Your task to perform on an android device: change your default location settings in chrome Image 0: 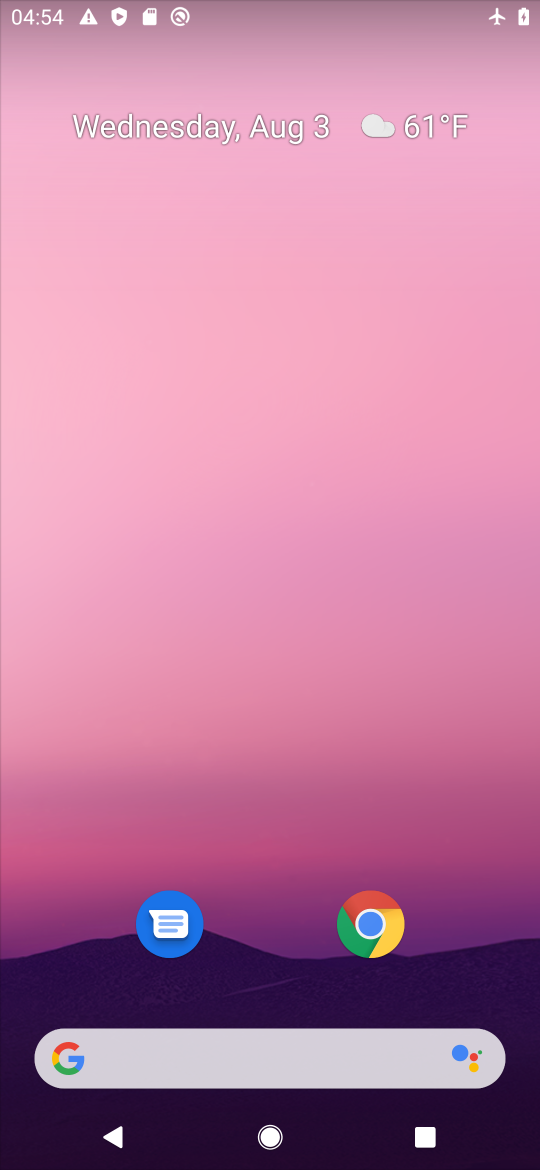
Step 0: click (374, 941)
Your task to perform on an android device: change your default location settings in chrome Image 1: 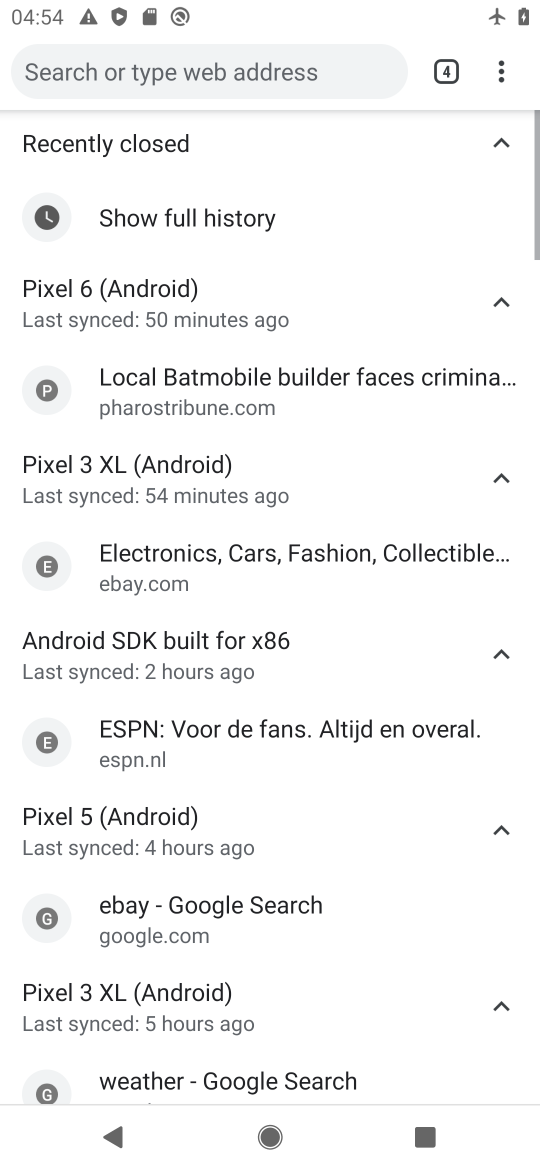
Step 1: click (528, 78)
Your task to perform on an android device: change your default location settings in chrome Image 2: 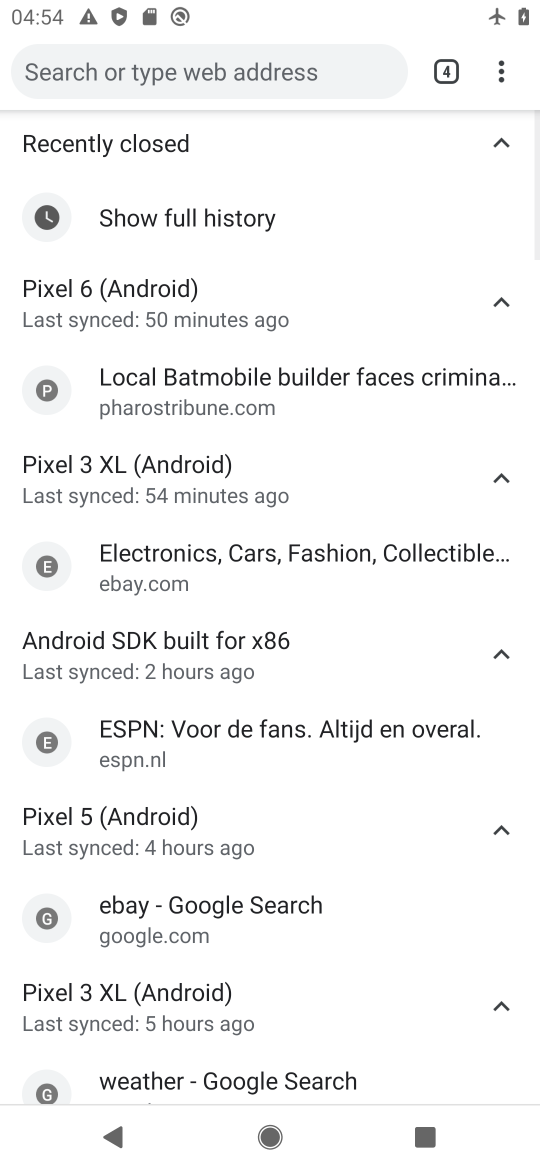
Step 2: click (505, 71)
Your task to perform on an android device: change your default location settings in chrome Image 3: 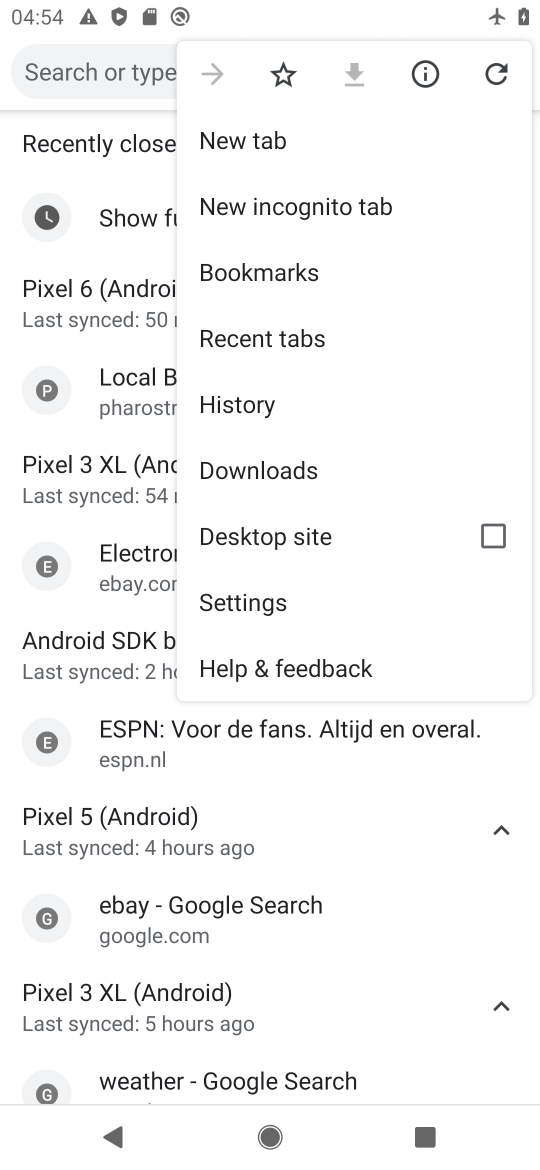
Step 3: click (299, 592)
Your task to perform on an android device: change your default location settings in chrome Image 4: 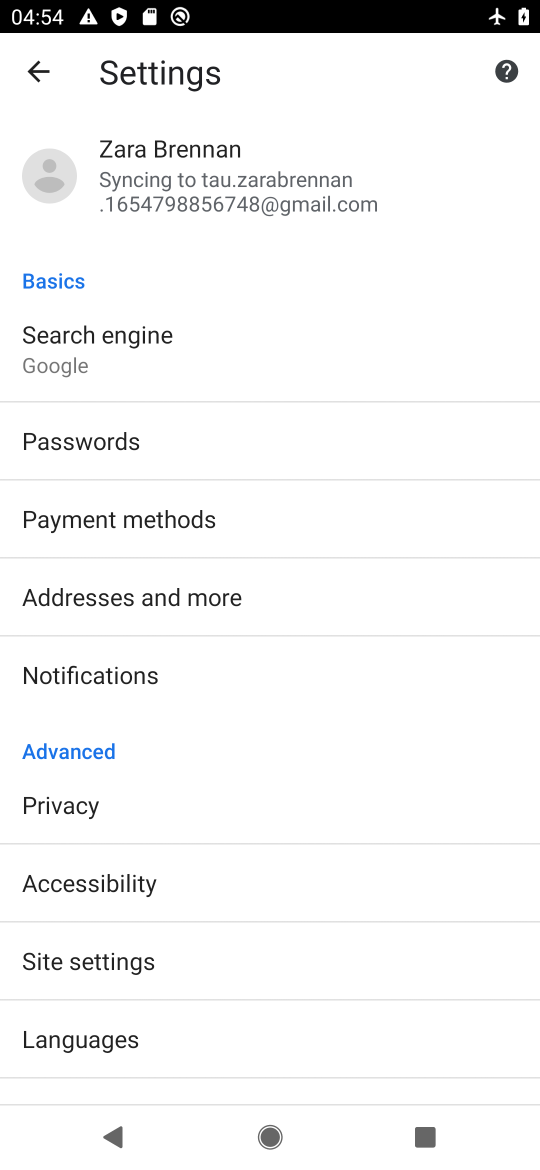
Step 4: click (133, 976)
Your task to perform on an android device: change your default location settings in chrome Image 5: 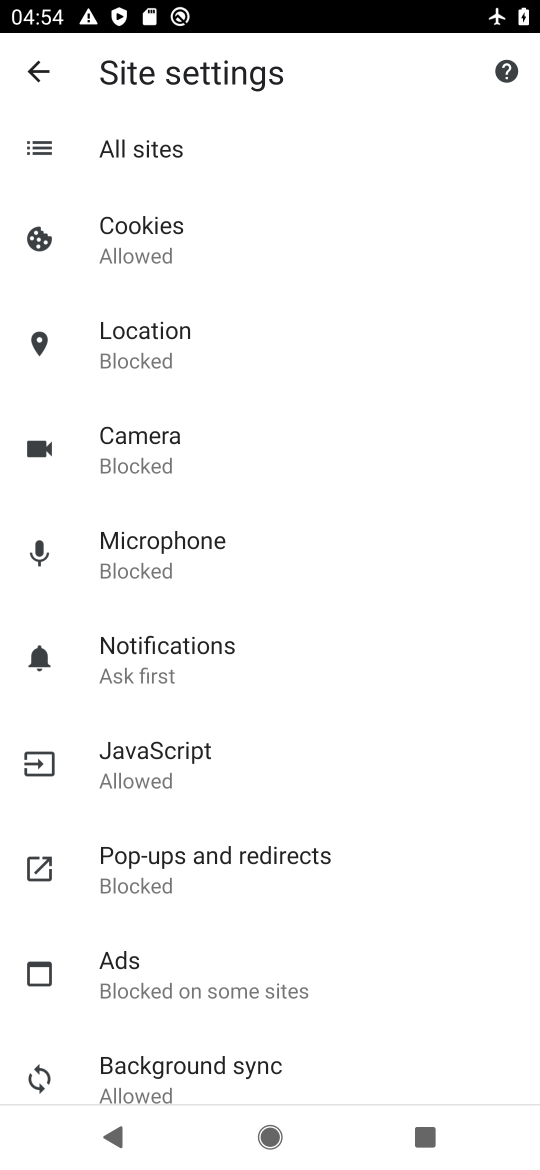
Step 5: click (206, 367)
Your task to perform on an android device: change your default location settings in chrome Image 6: 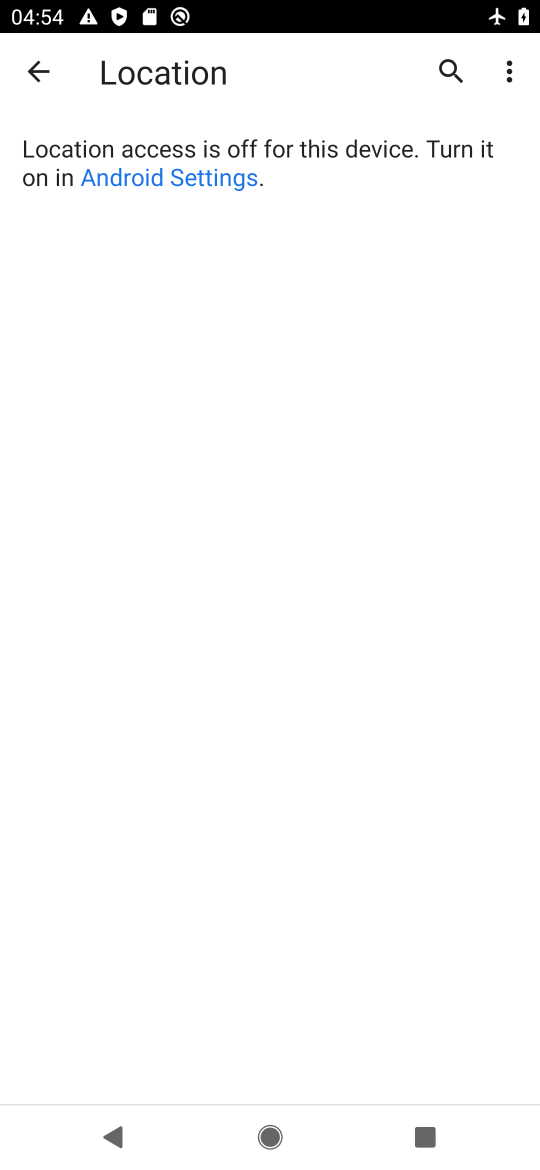
Step 6: task complete